Your task to perform on an android device: Go to Google maps Image 0: 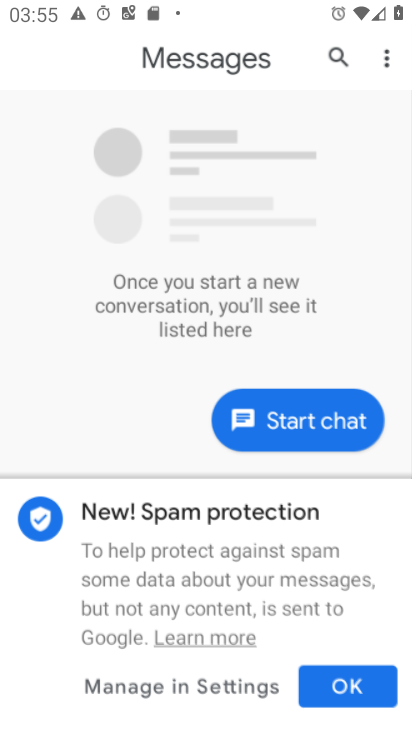
Step 0: press home button
Your task to perform on an android device: Go to Google maps Image 1: 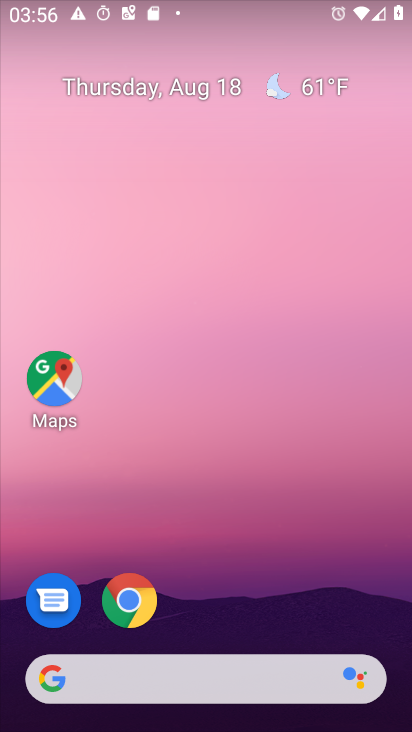
Step 1: click (46, 388)
Your task to perform on an android device: Go to Google maps Image 2: 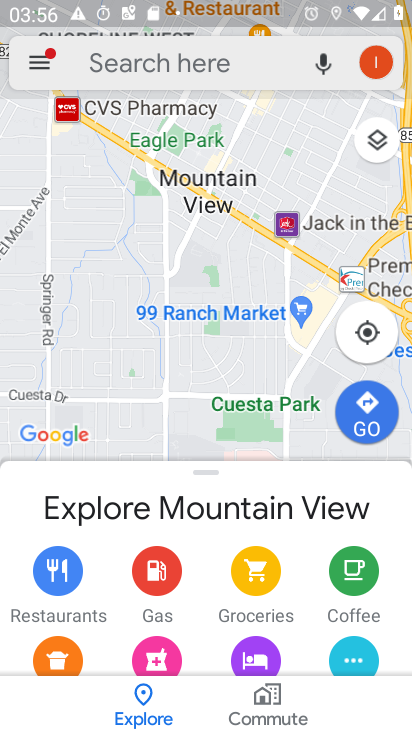
Step 2: task complete